Your task to perform on an android device: turn off data saver in the chrome app Image 0: 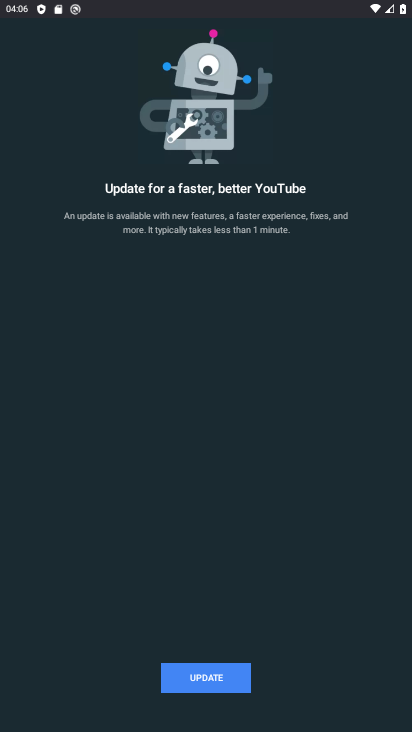
Step 0: press back button
Your task to perform on an android device: turn off data saver in the chrome app Image 1: 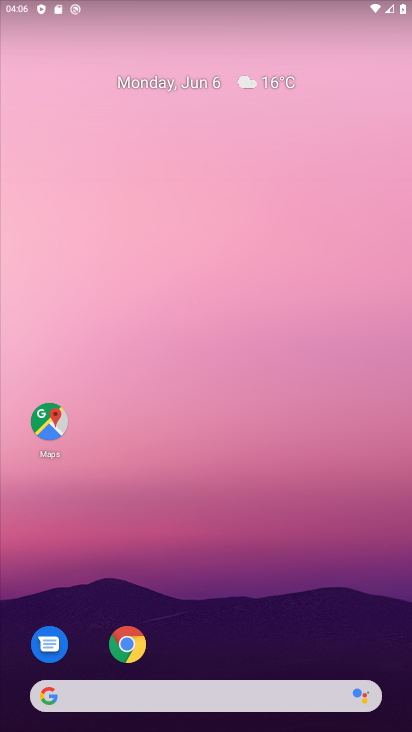
Step 1: click (146, 642)
Your task to perform on an android device: turn off data saver in the chrome app Image 2: 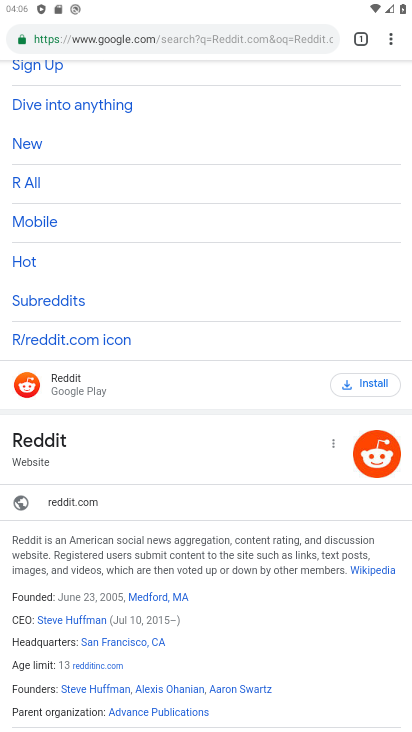
Step 2: click (391, 36)
Your task to perform on an android device: turn off data saver in the chrome app Image 3: 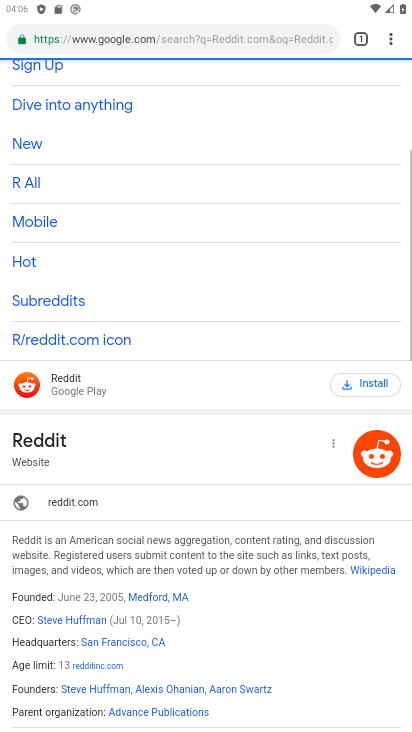
Step 3: click (391, 36)
Your task to perform on an android device: turn off data saver in the chrome app Image 4: 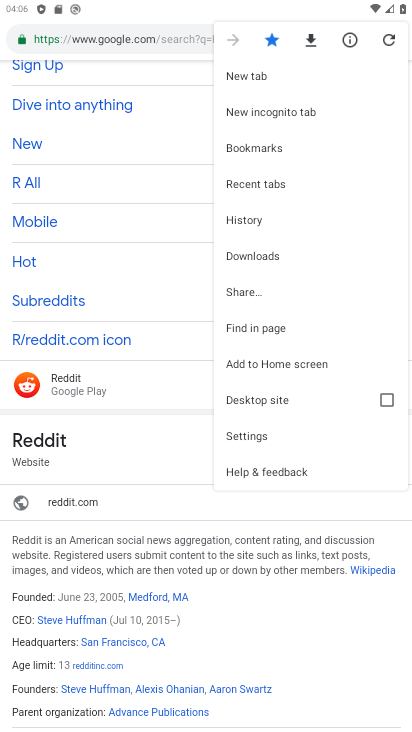
Step 4: click (245, 437)
Your task to perform on an android device: turn off data saver in the chrome app Image 5: 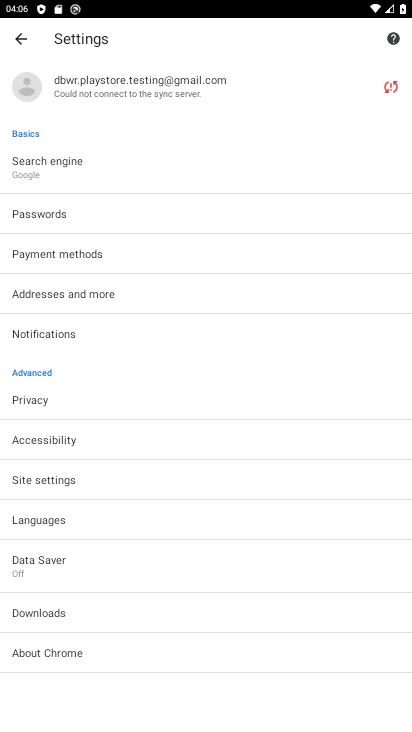
Step 5: click (76, 567)
Your task to perform on an android device: turn off data saver in the chrome app Image 6: 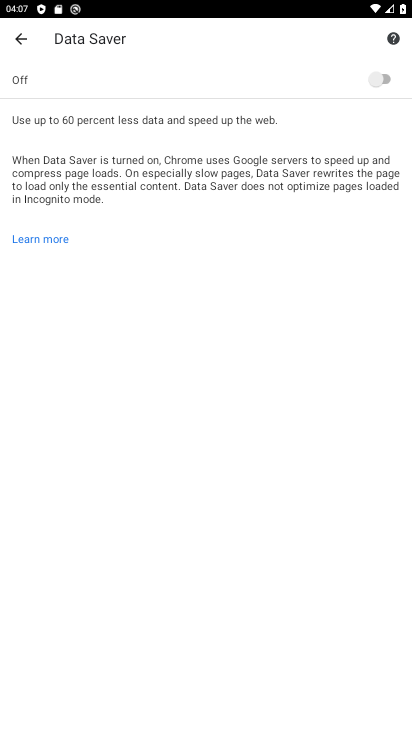
Step 6: task complete